Your task to perform on an android device: add a contact in the contacts app Image 0: 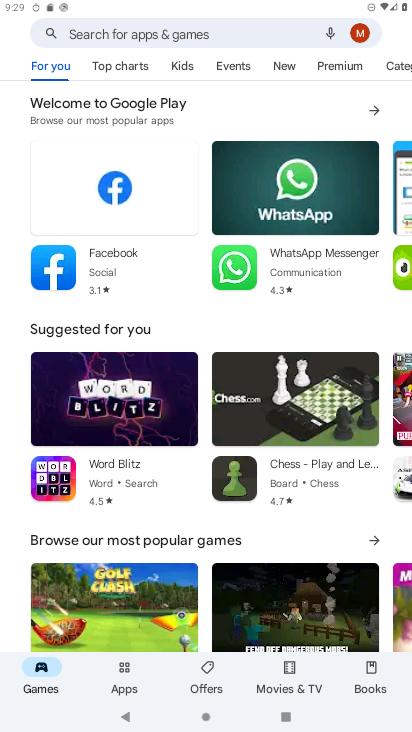
Step 0: press home button
Your task to perform on an android device: add a contact in the contacts app Image 1: 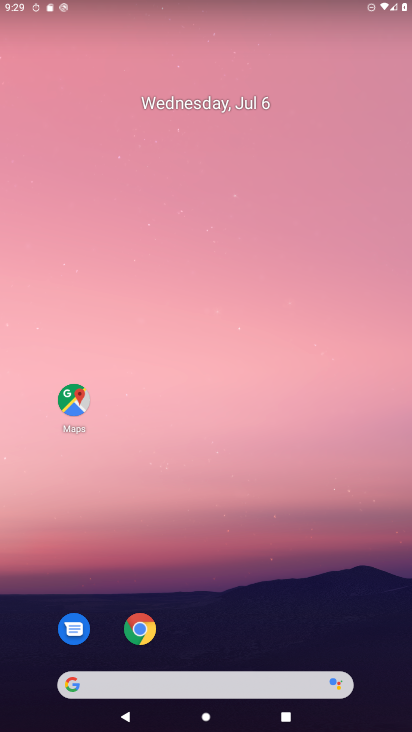
Step 1: drag from (246, 727) to (243, 102)
Your task to perform on an android device: add a contact in the contacts app Image 2: 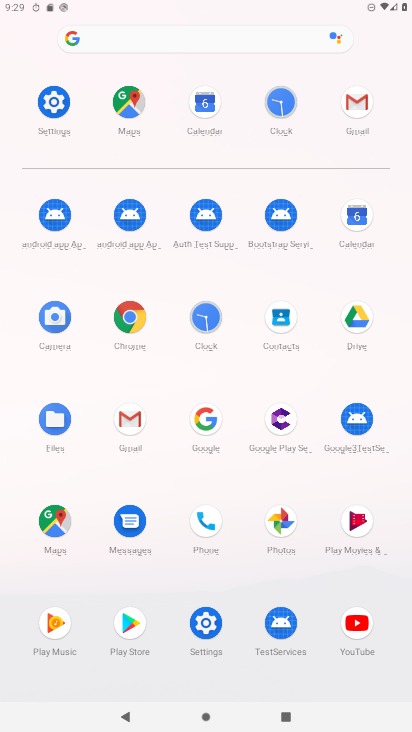
Step 2: click (282, 322)
Your task to perform on an android device: add a contact in the contacts app Image 3: 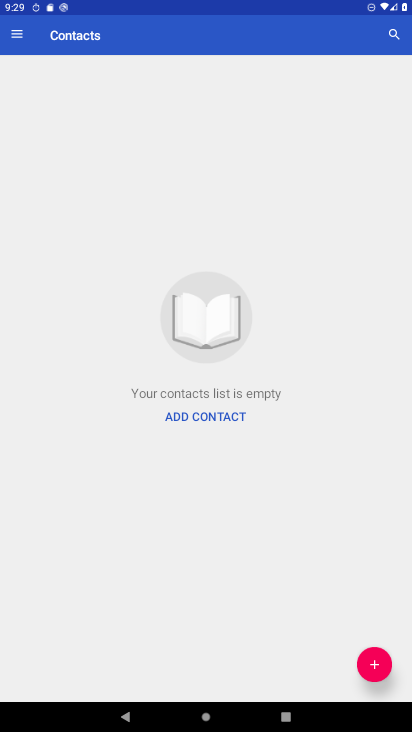
Step 3: click (382, 663)
Your task to perform on an android device: add a contact in the contacts app Image 4: 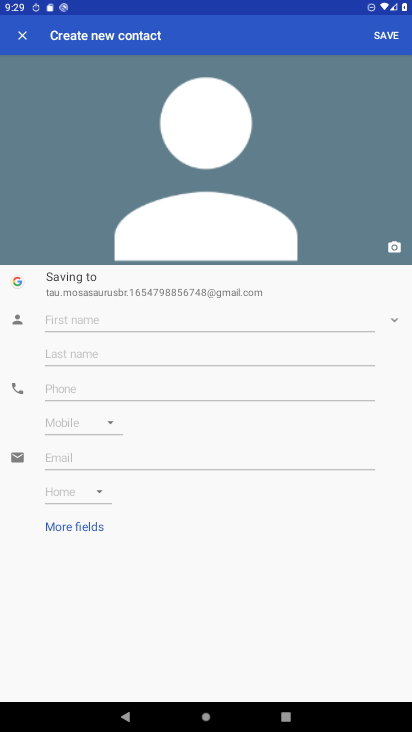
Step 4: click (159, 320)
Your task to perform on an android device: add a contact in the contacts app Image 5: 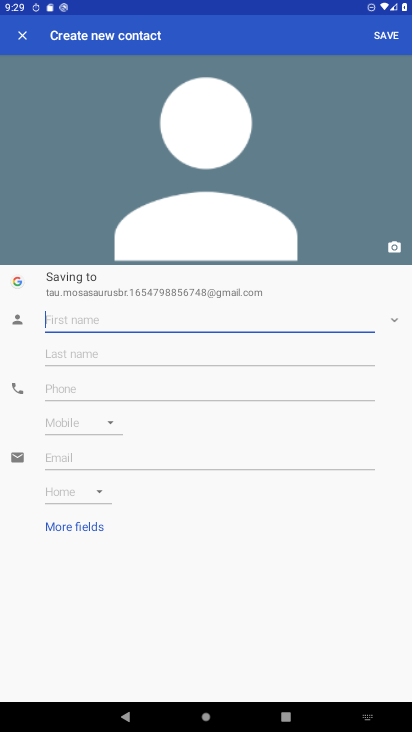
Step 5: type "uoon"
Your task to perform on an android device: add a contact in the contacts app Image 6: 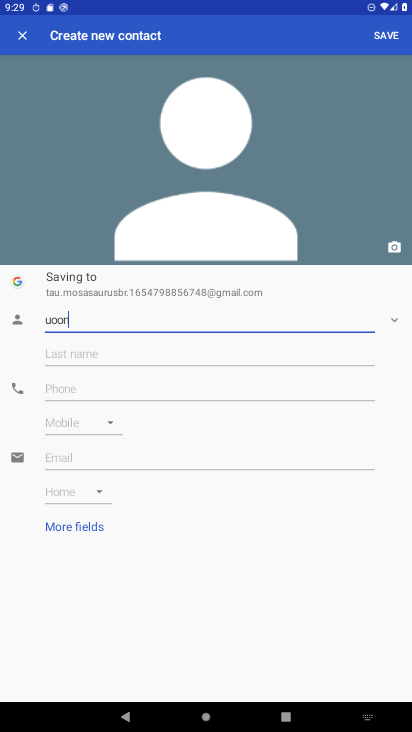
Step 6: type ""
Your task to perform on an android device: add a contact in the contacts app Image 7: 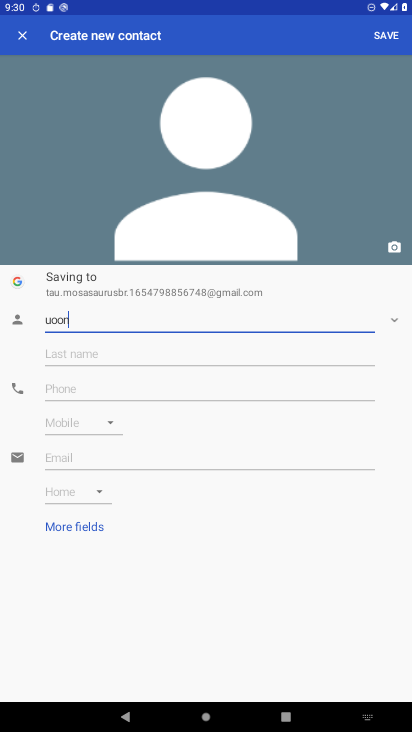
Step 7: click (67, 391)
Your task to perform on an android device: add a contact in the contacts app Image 8: 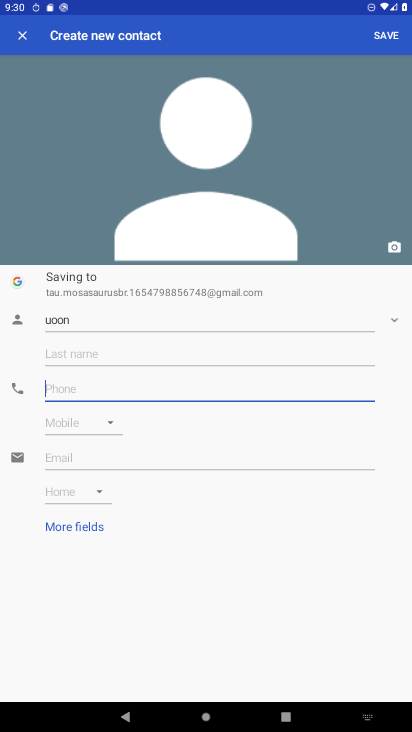
Step 8: type "87878787"
Your task to perform on an android device: add a contact in the contacts app Image 9: 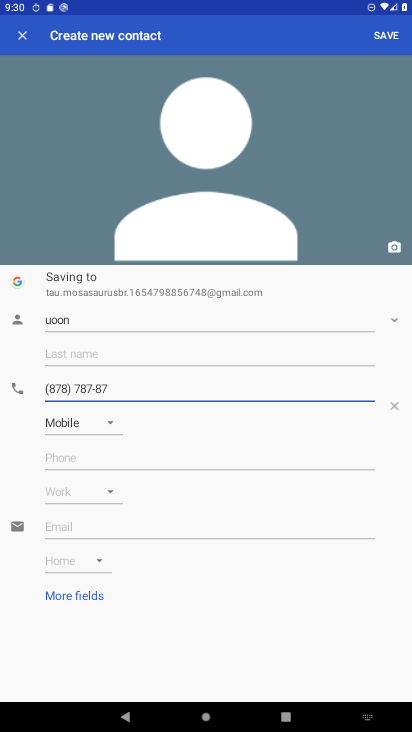
Step 9: click (376, 36)
Your task to perform on an android device: add a contact in the contacts app Image 10: 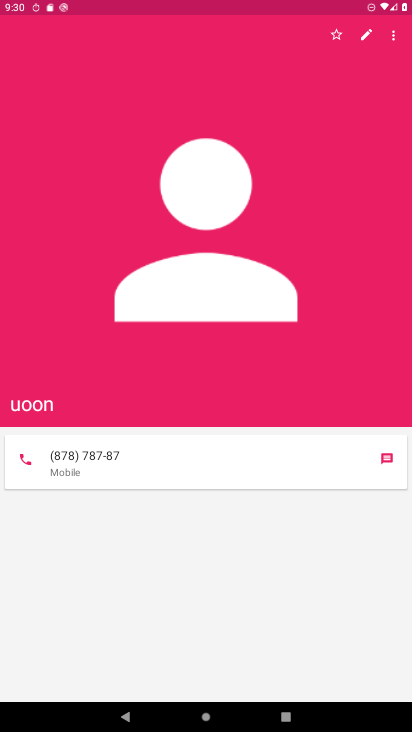
Step 10: task complete